Your task to perform on an android device: toggle airplane mode Image 0: 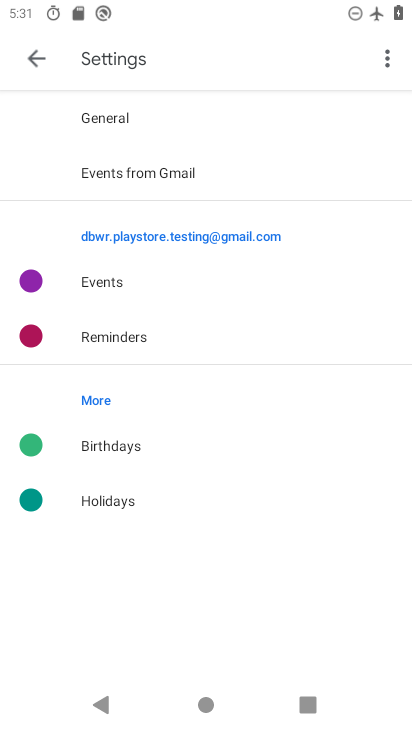
Step 0: press home button
Your task to perform on an android device: toggle airplane mode Image 1: 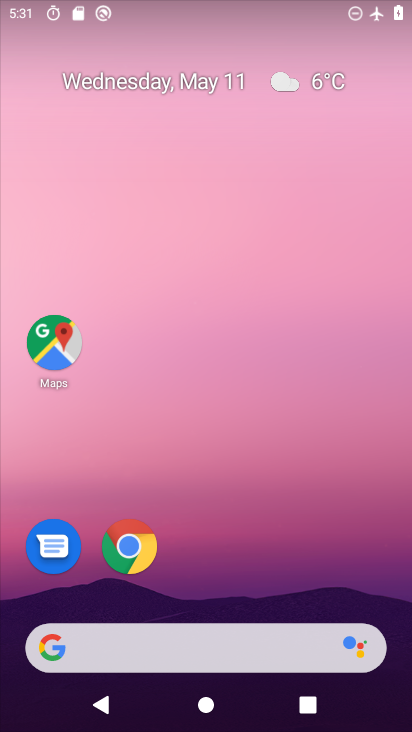
Step 1: drag from (173, 624) to (212, 201)
Your task to perform on an android device: toggle airplane mode Image 2: 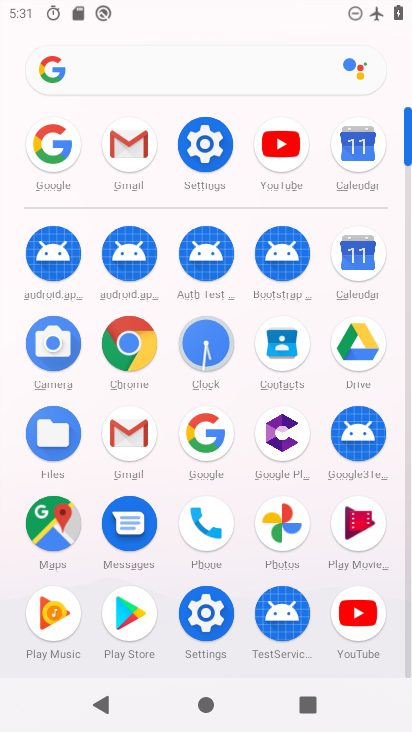
Step 2: click (206, 141)
Your task to perform on an android device: toggle airplane mode Image 3: 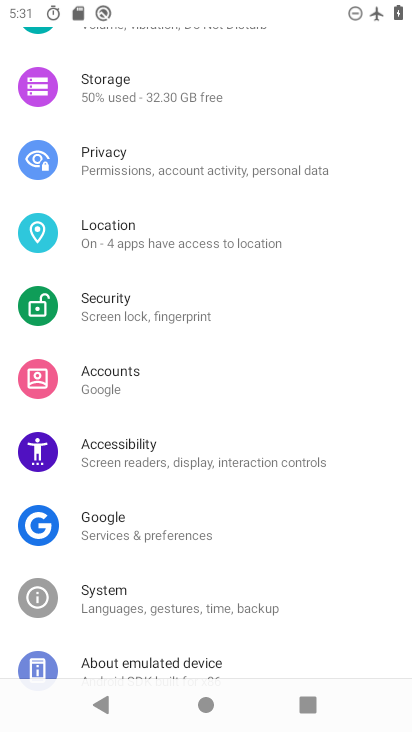
Step 3: drag from (186, 63) to (205, 537)
Your task to perform on an android device: toggle airplane mode Image 4: 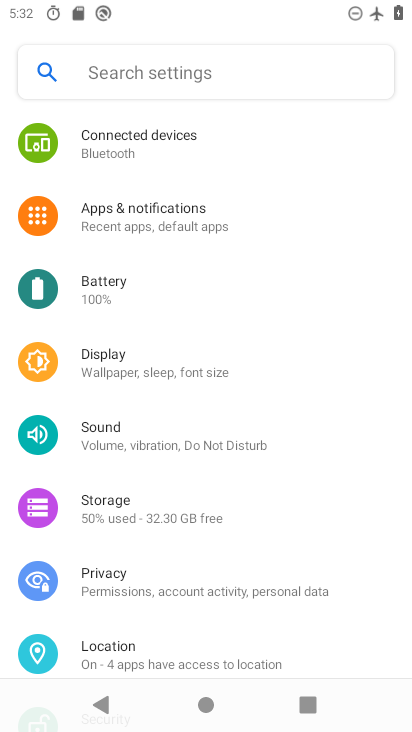
Step 4: drag from (166, 141) to (172, 568)
Your task to perform on an android device: toggle airplane mode Image 5: 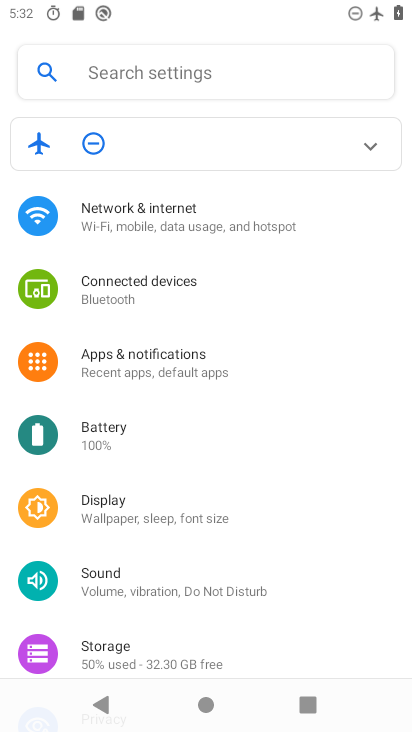
Step 5: click (143, 212)
Your task to perform on an android device: toggle airplane mode Image 6: 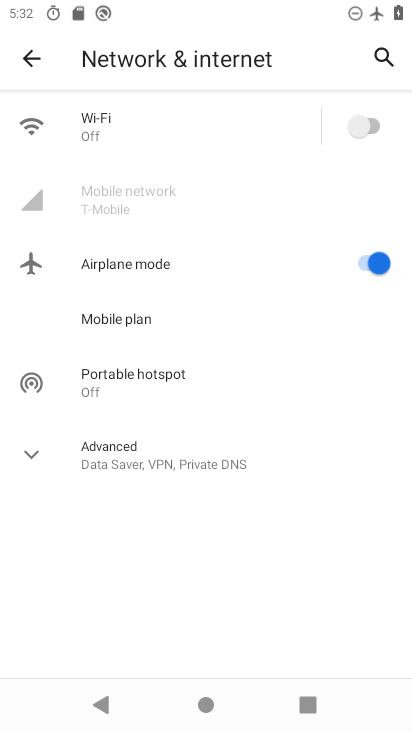
Step 6: click (367, 253)
Your task to perform on an android device: toggle airplane mode Image 7: 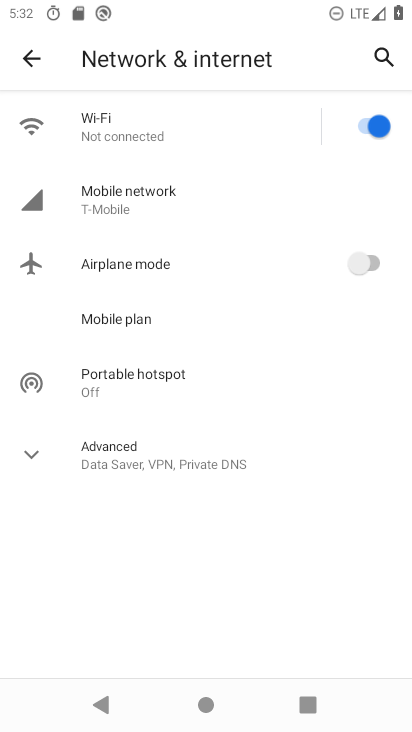
Step 7: task complete